Your task to perform on an android device: remove spam from my inbox in the gmail app Image 0: 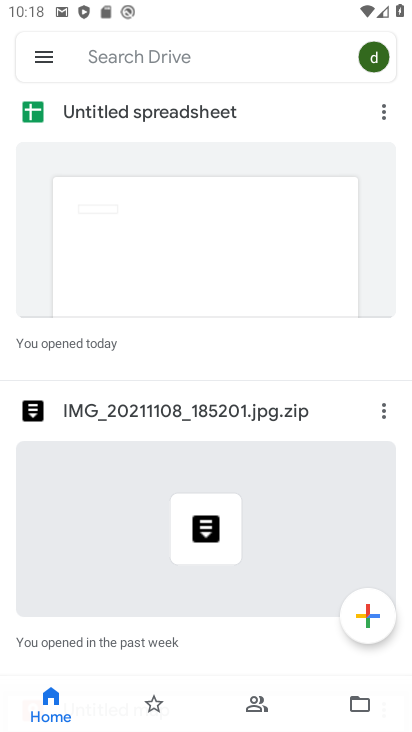
Step 0: press home button
Your task to perform on an android device: remove spam from my inbox in the gmail app Image 1: 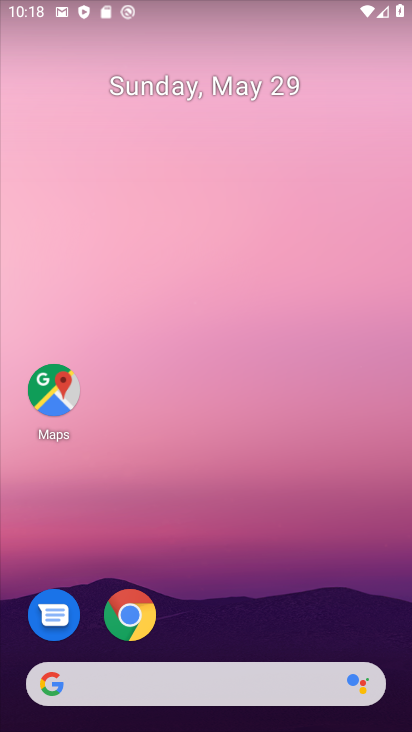
Step 1: drag from (382, 609) to (379, 105)
Your task to perform on an android device: remove spam from my inbox in the gmail app Image 2: 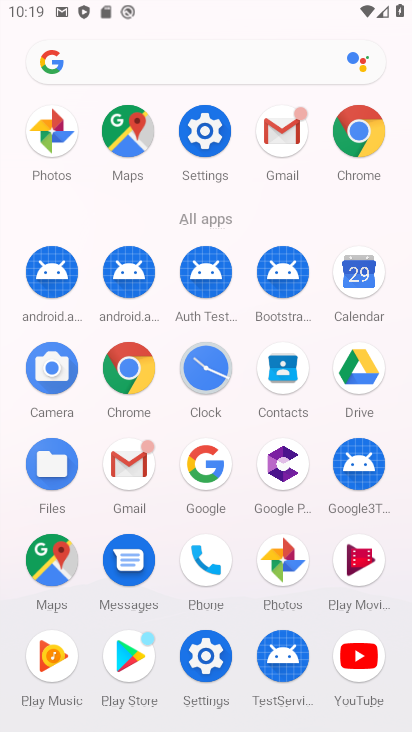
Step 2: click (122, 467)
Your task to perform on an android device: remove spam from my inbox in the gmail app Image 3: 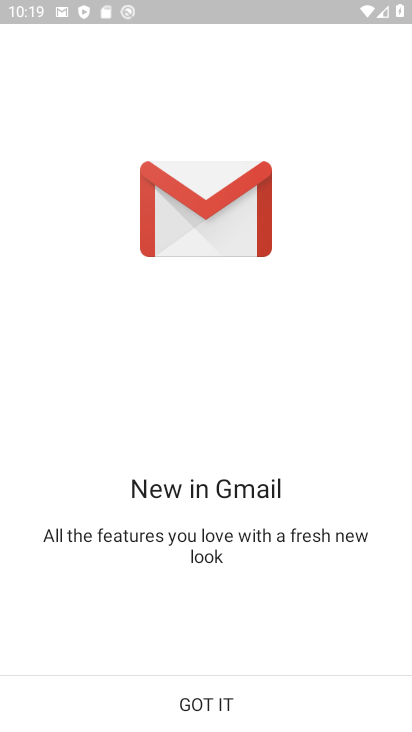
Step 3: click (201, 704)
Your task to perform on an android device: remove spam from my inbox in the gmail app Image 4: 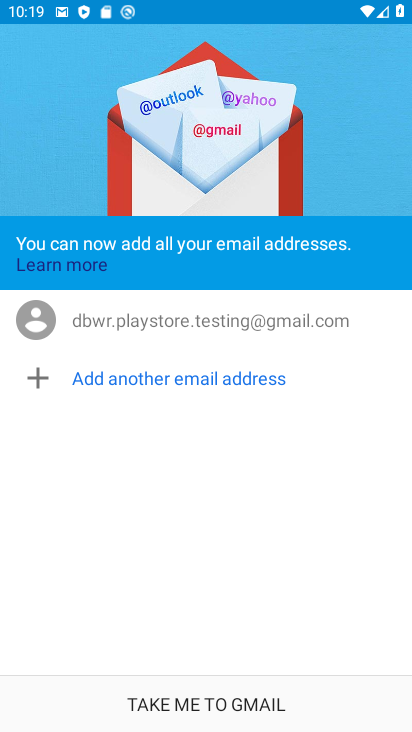
Step 4: click (197, 700)
Your task to perform on an android device: remove spam from my inbox in the gmail app Image 5: 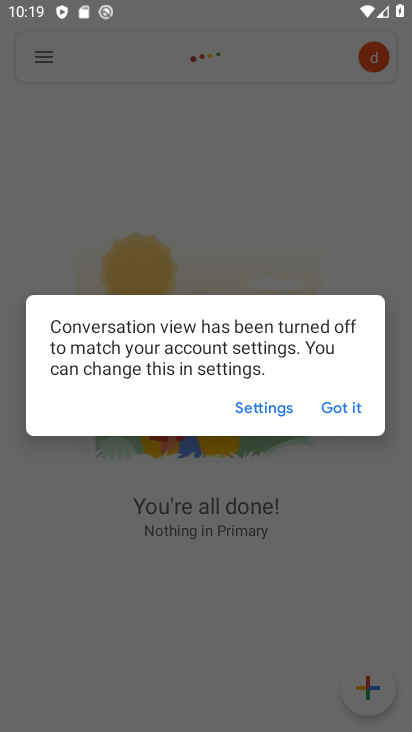
Step 5: click (341, 416)
Your task to perform on an android device: remove spam from my inbox in the gmail app Image 6: 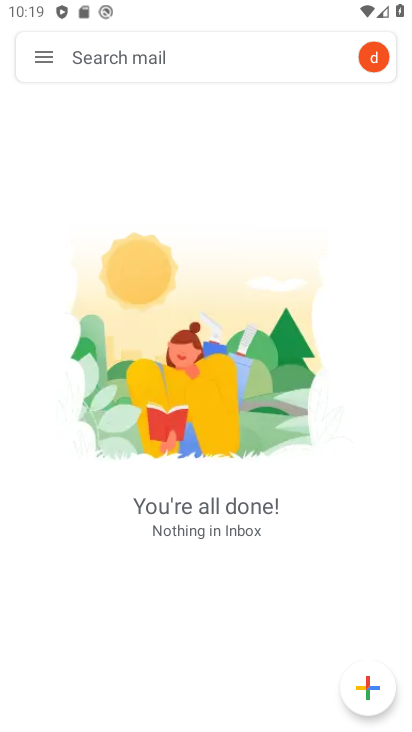
Step 6: click (52, 63)
Your task to perform on an android device: remove spam from my inbox in the gmail app Image 7: 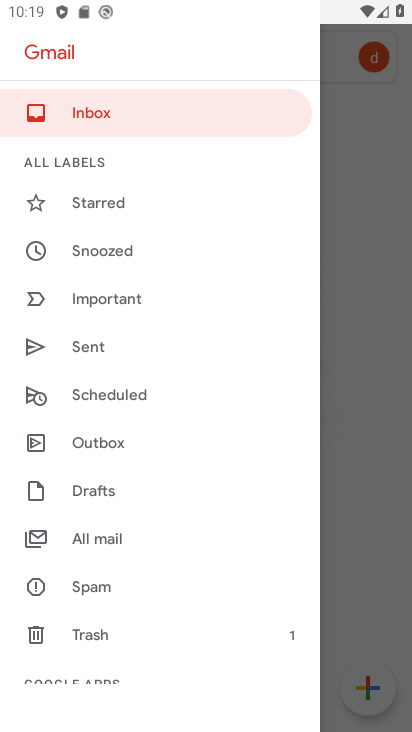
Step 7: drag from (248, 404) to (246, 341)
Your task to perform on an android device: remove spam from my inbox in the gmail app Image 8: 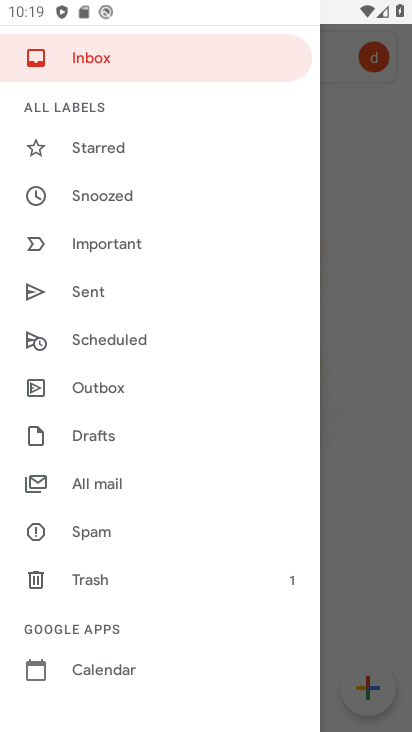
Step 8: drag from (234, 447) to (243, 349)
Your task to perform on an android device: remove spam from my inbox in the gmail app Image 9: 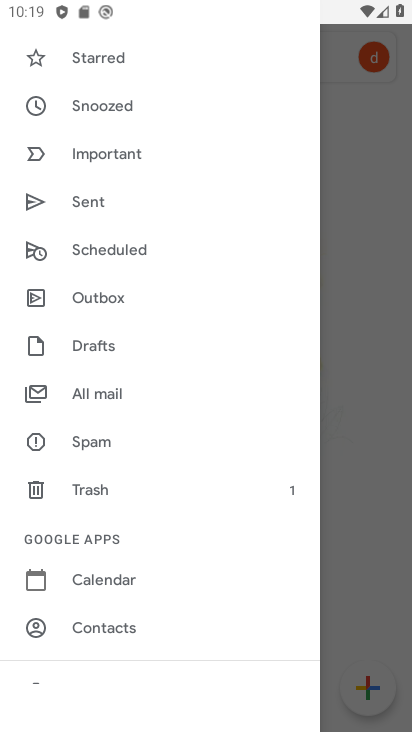
Step 9: drag from (250, 475) to (252, 383)
Your task to perform on an android device: remove spam from my inbox in the gmail app Image 10: 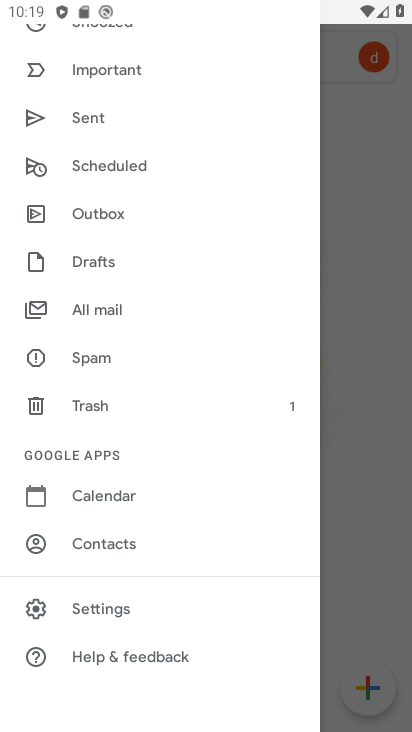
Step 10: drag from (243, 481) to (228, 391)
Your task to perform on an android device: remove spam from my inbox in the gmail app Image 11: 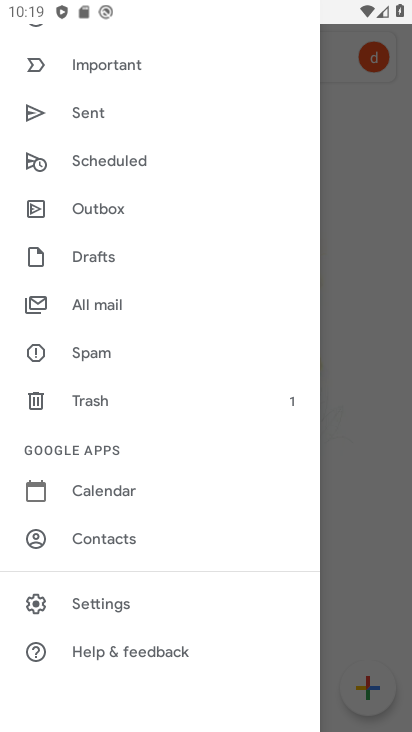
Step 11: drag from (214, 528) to (222, 422)
Your task to perform on an android device: remove spam from my inbox in the gmail app Image 12: 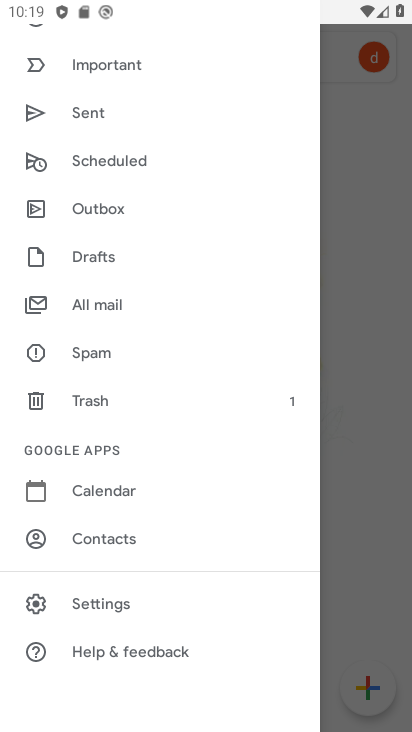
Step 12: click (141, 362)
Your task to perform on an android device: remove spam from my inbox in the gmail app Image 13: 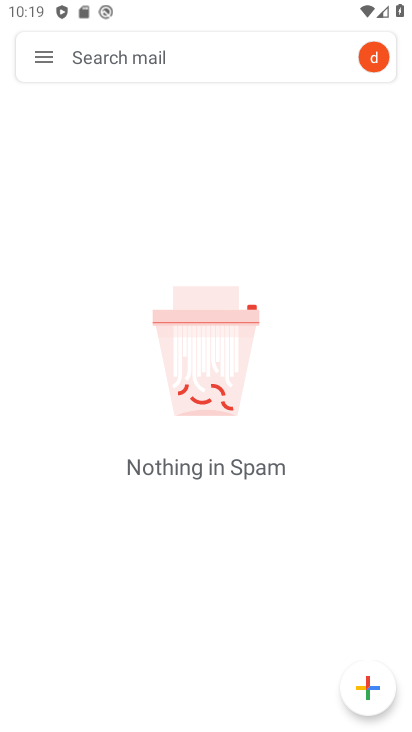
Step 13: task complete